Your task to perform on an android device: Do I have any events tomorrow? Image 0: 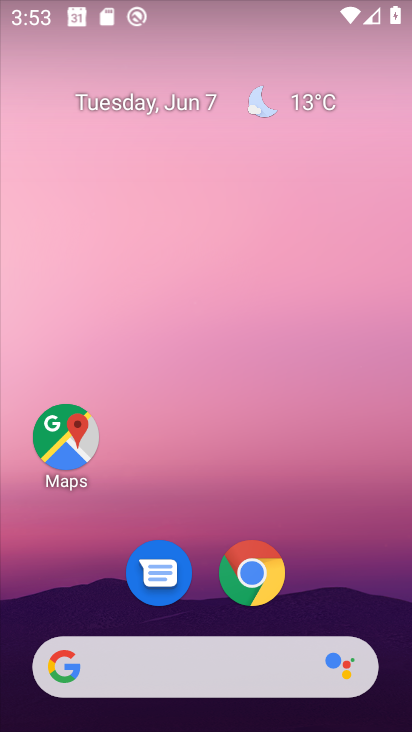
Step 0: drag from (396, 697) to (344, 39)
Your task to perform on an android device: Do I have any events tomorrow? Image 1: 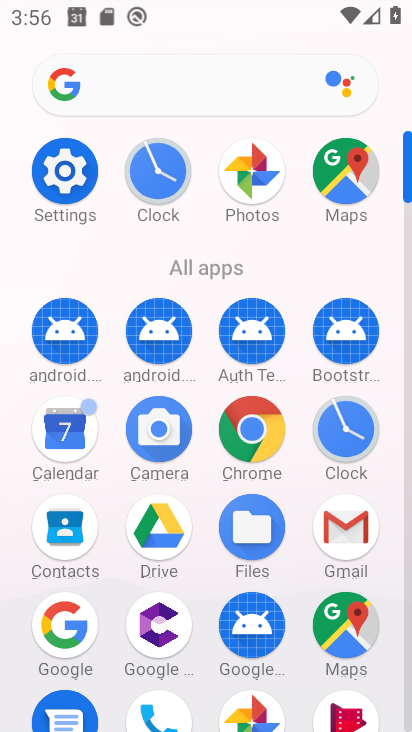
Step 1: click (68, 428)
Your task to perform on an android device: Do I have any events tomorrow? Image 2: 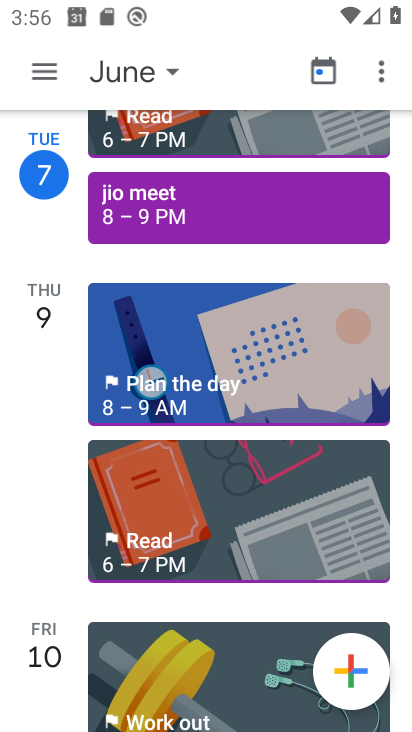
Step 2: click (174, 71)
Your task to perform on an android device: Do I have any events tomorrow? Image 3: 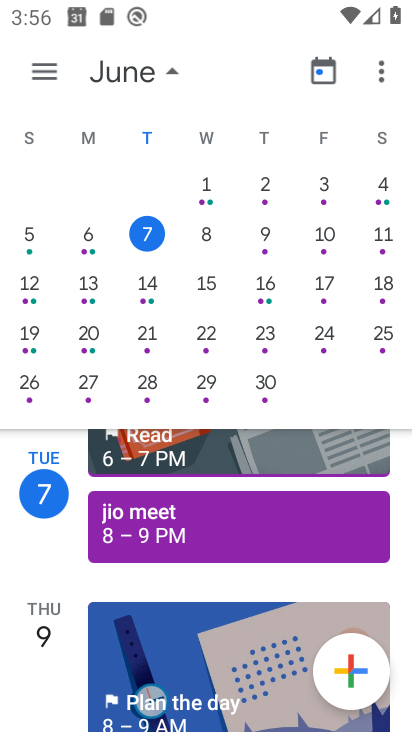
Step 3: click (214, 234)
Your task to perform on an android device: Do I have any events tomorrow? Image 4: 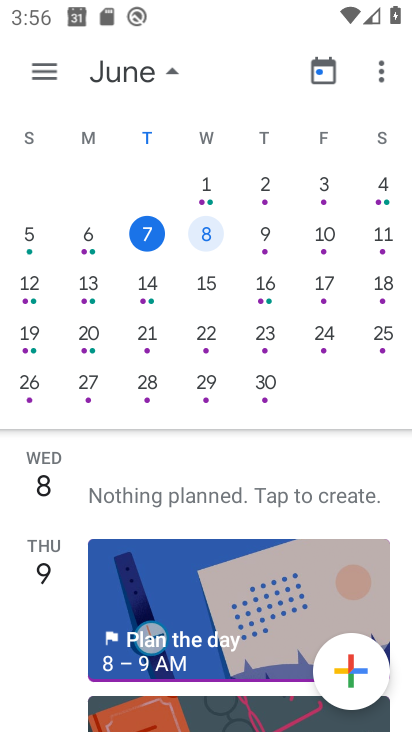
Step 4: click (154, 83)
Your task to perform on an android device: Do I have any events tomorrow? Image 5: 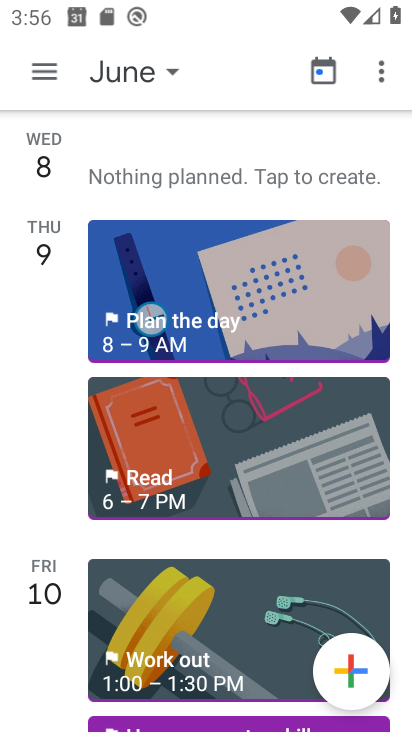
Step 5: task complete